Your task to perform on an android device: Open location settings Image 0: 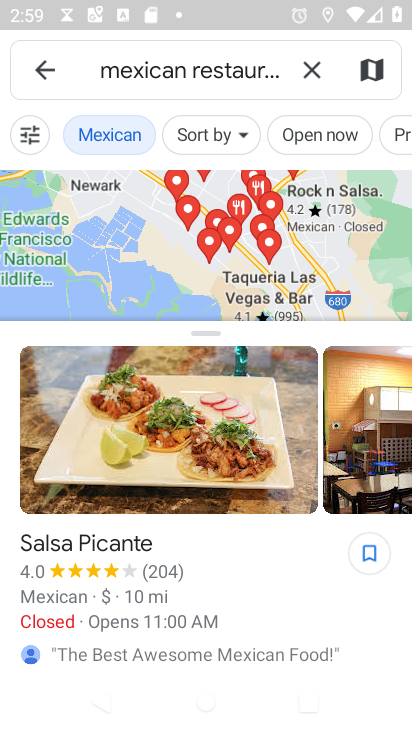
Step 0: press home button
Your task to perform on an android device: Open location settings Image 1: 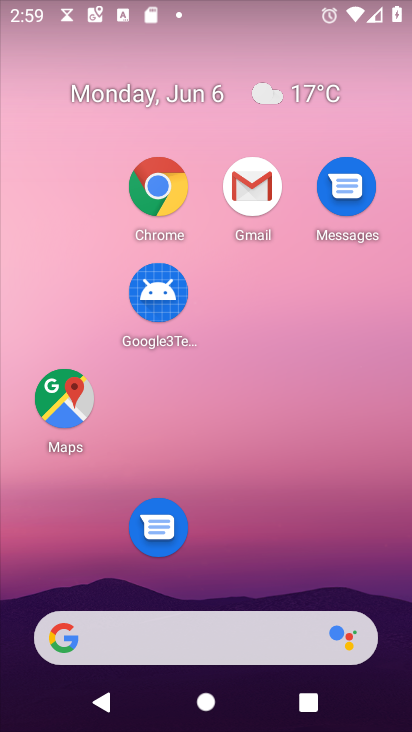
Step 1: drag from (273, 432) to (269, 121)
Your task to perform on an android device: Open location settings Image 2: 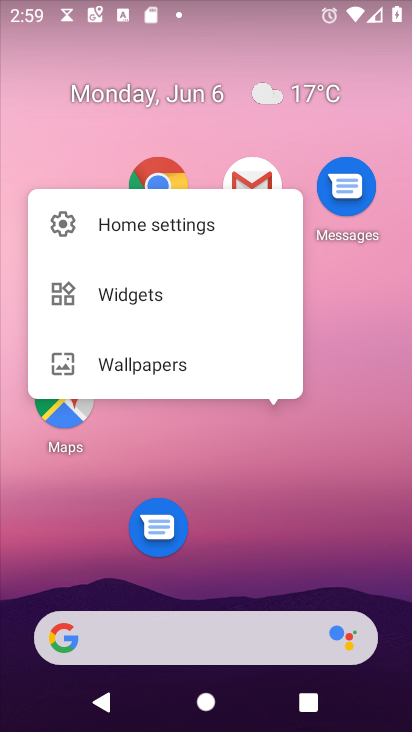
Step 2: click (375, 500)
Your task to perform on an android device: Open location settings Image 3: 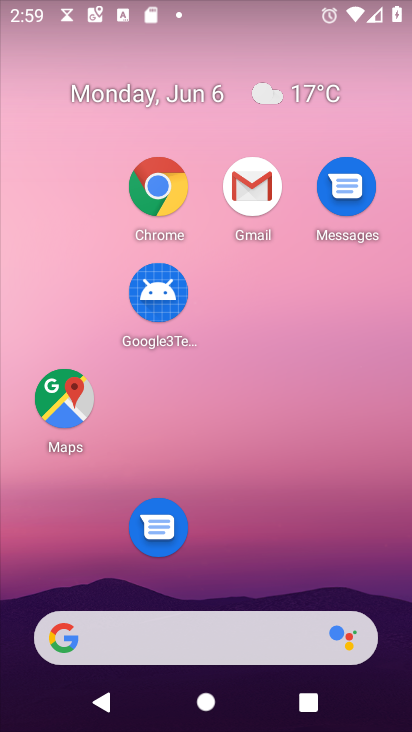
Step 3: drag from (348, 507) to (280, 3)
Your task to perform on an android device: Open location settings Image 4: 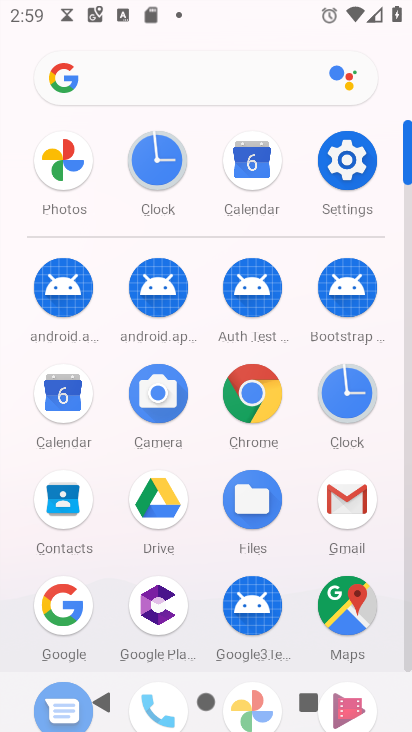
Step 4: click (341, 169)
Your task to perform on an android device: Open location settings Image 5: 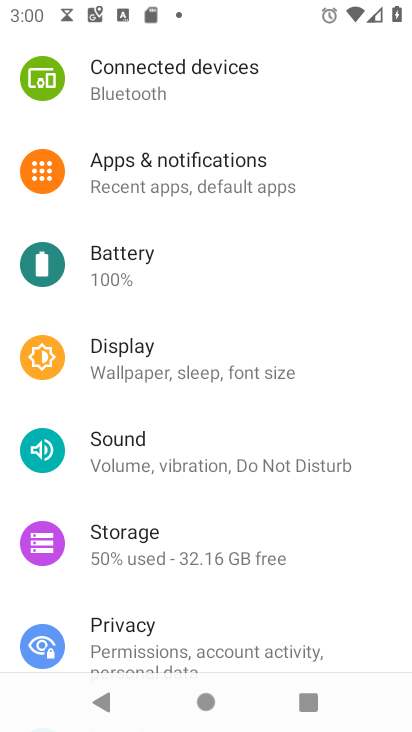
Step 5: drag from (370, 224) to (341, 58)
Your task to perform on an android device: Open location settings Image 6: 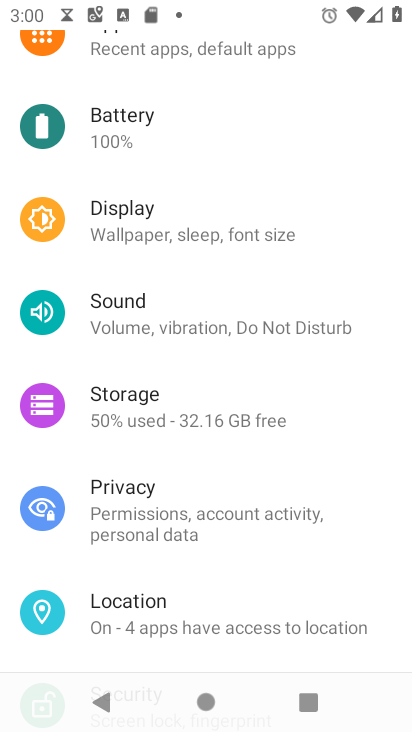
Step 6: click (183, 601)
Your task to perform on an android device: Open location settings Image 7: 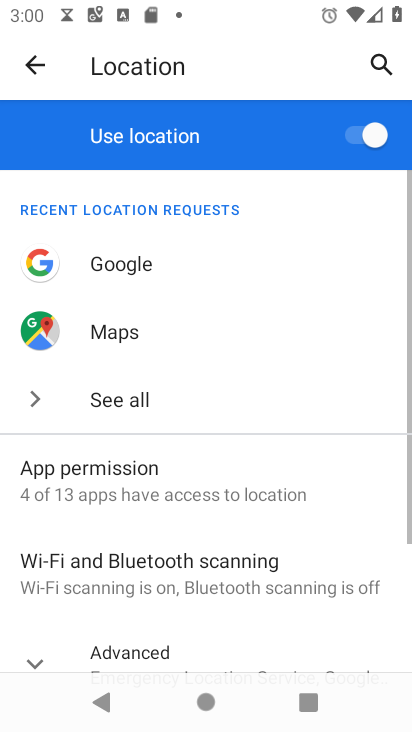
Step 7: task complete